Your task to perform on an android device: open wifi settings Image 0: 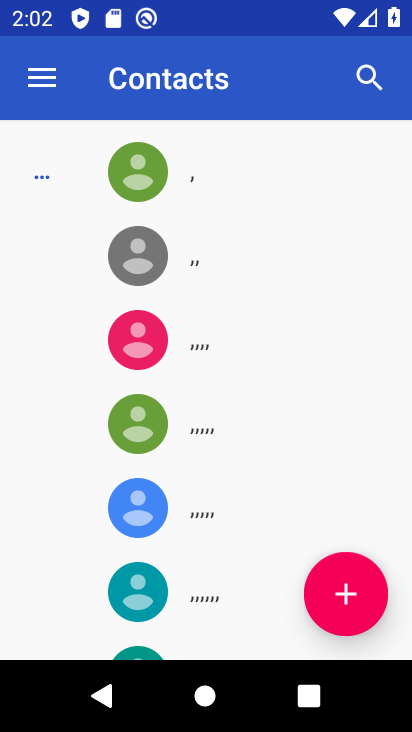
Step 0: press home button
Your task to perform on an android device: open wifi settings Image 1: 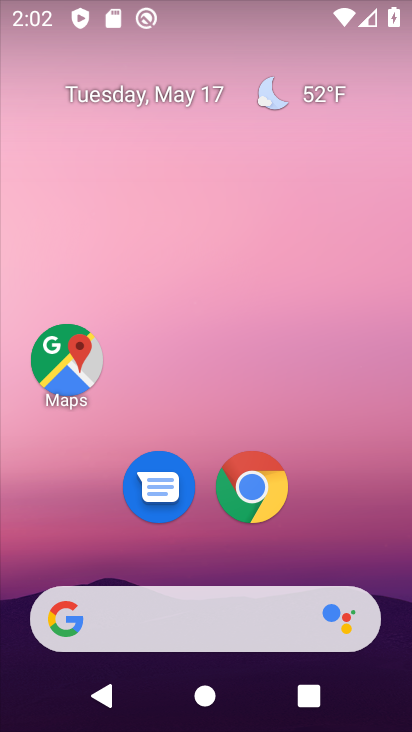
Step 1: drag from (385, 648) to (302, 230)
Your task to perform on an android device: open wifi settings Image 2: 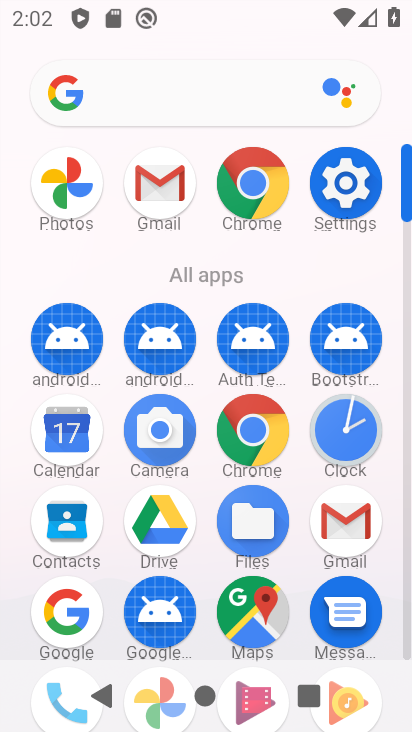
Step 2: click (353, 180)
Your task to perform on an android device: open wifi settings Image 3: 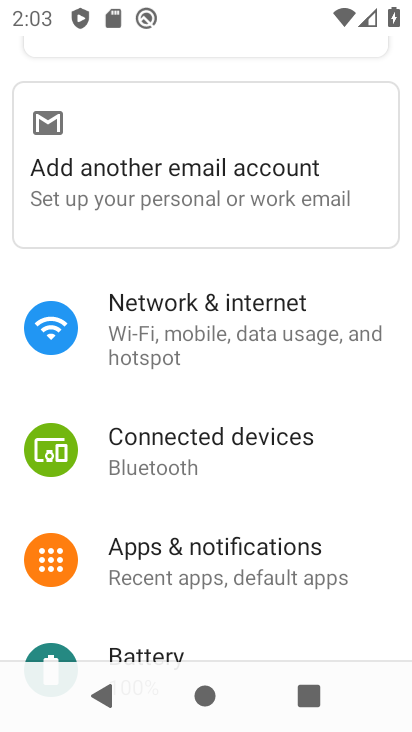
Step 3: click (175, 321)
Your task to perform on an android device: open wifi settings Image 4: 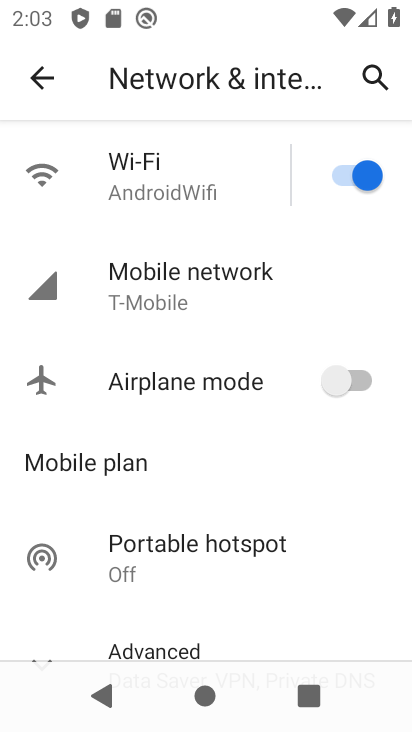
Step 4: click (193, 177)
Your task to perform on an android device: open wifi settings Image 5: 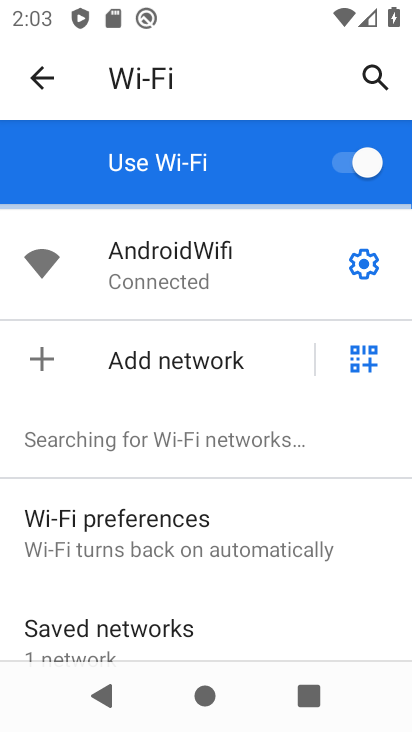
Step 5: click (361, 266)
Your task to perform on an android device: open wifi settings Image 6: 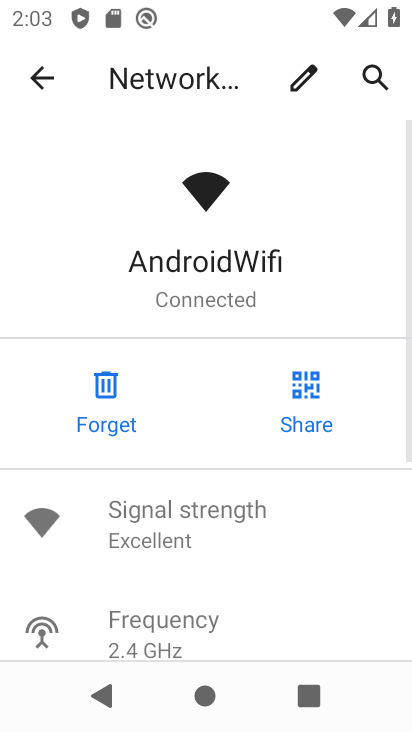
Step 6: task complete